Your task to perform on an android device: Find coffee shops on Maps Image 0: 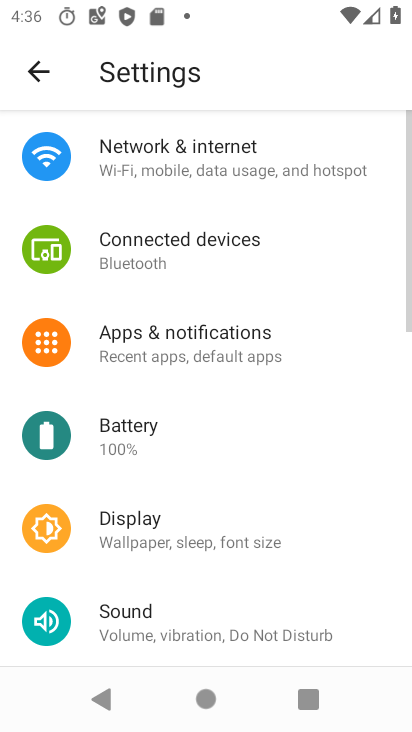
Step 0: press home button
Your task to perform on an android device: Find coffee shops on Maps Image 1: 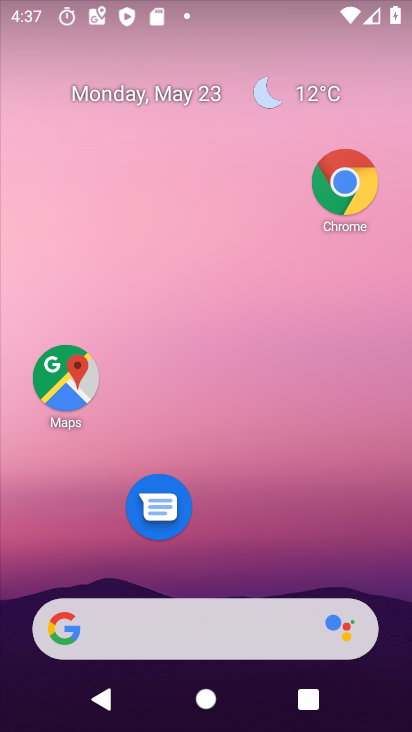
Step 1: click (69, 367)
Your task to perform on an android device: Find coffee shops on Maps Image 2: 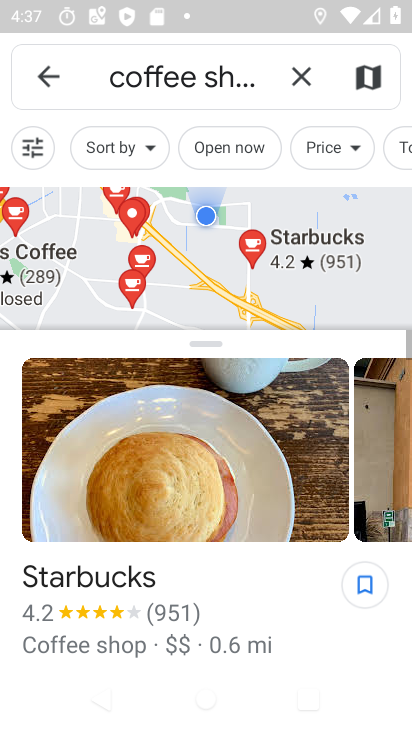
Step 2: task complete